Your task to perform on an android device: turn on notifications settings in the gmail app Image 0: 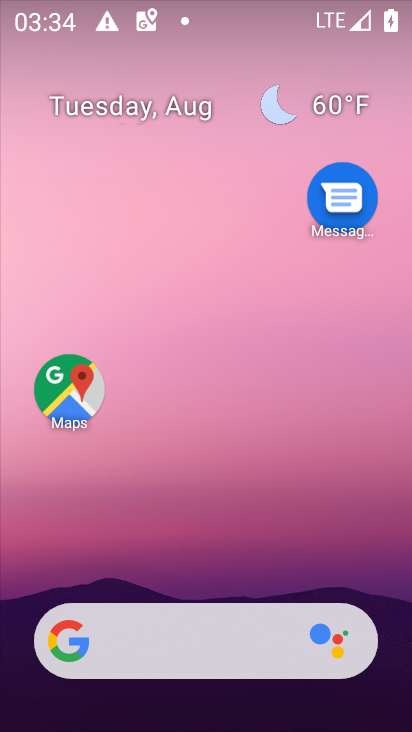
Step 0: drag from (219, 587) to (250, 19)
Your task to perform on an android device: turn on notifications settings in the gmail app Image 1: 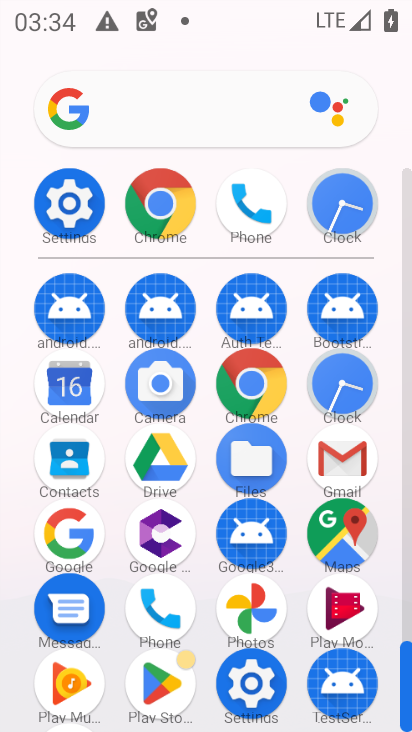
Step 1: click (352, 473)
Your task to perform on an android device: turn on notifications settings in the gmail app Image 2: 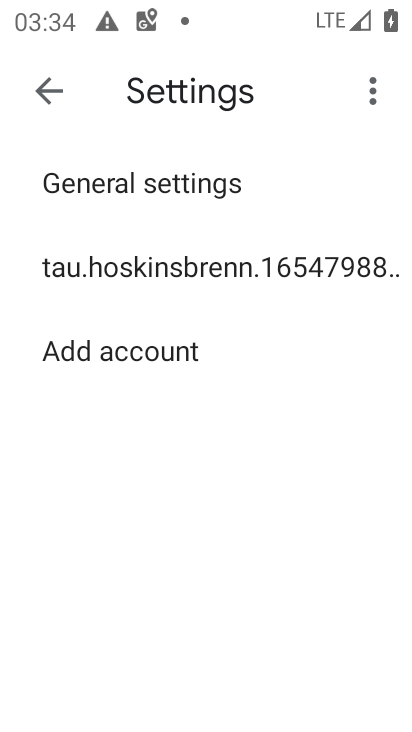
Step 2: task complete